Your task to perform on an android device: remove spam from my inbox in the gmail app Image 0: 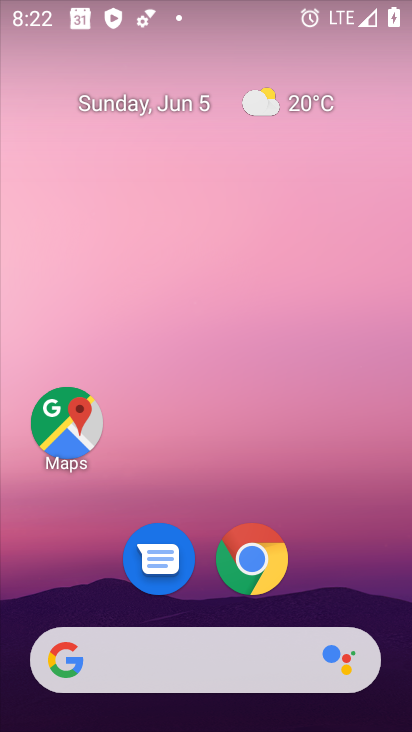
Step 0: drag from (244, 267) to (248, 4)
Your task to perform on an android device: remove spam from my inbox in the gmail app Image 1: 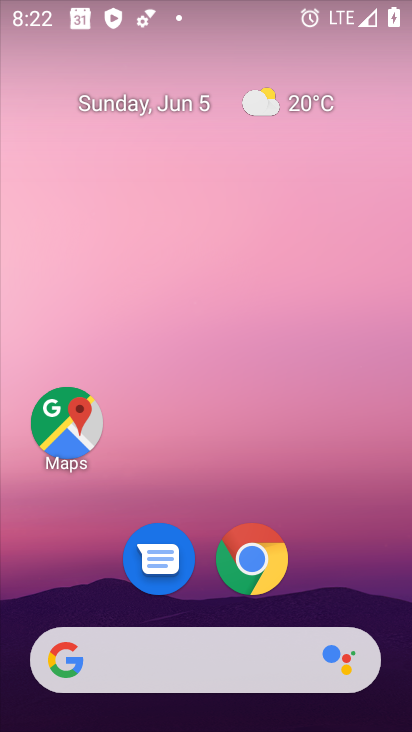
Step 1: drag from (383, 525) to (326, 72)
Your task to perform on an android device: remove spam from my inbox in the gmail app Image 2: 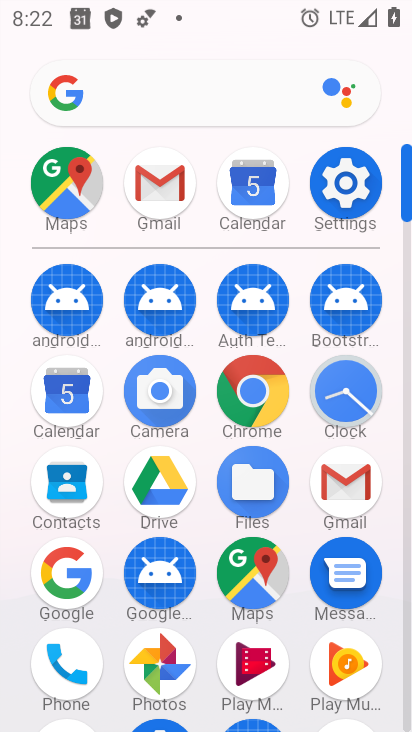
Step 2: click (147, 185)
Your task to perform on an android device: remove spam from my inbox in the gmail app Image 3: 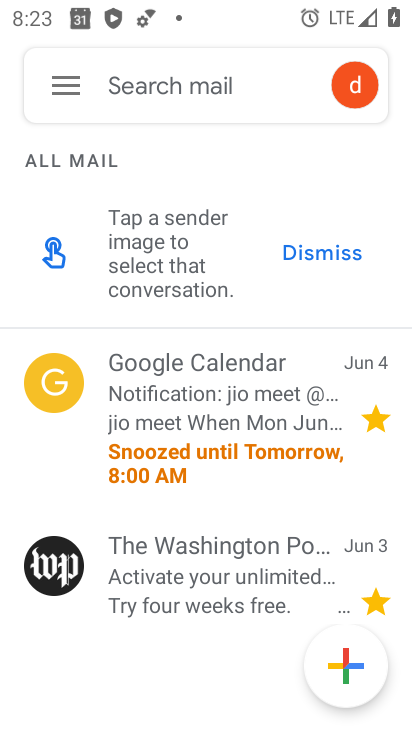
Step 3: click (72, 88)
Your task to perform on an android device: remove spam from my inbox in the gmail app Image 4: 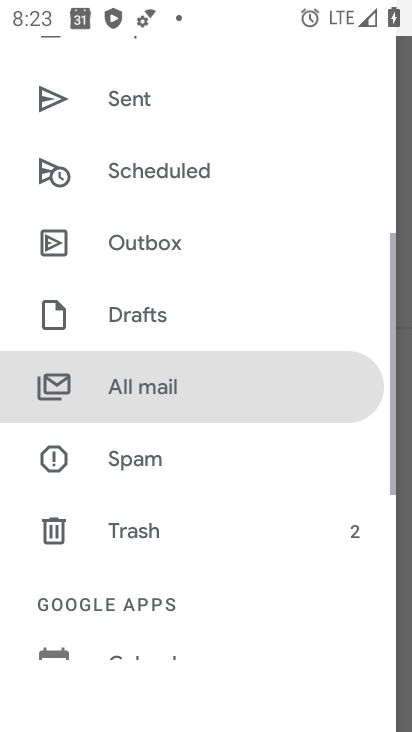
Step 4: drag from (173, 135) to (178, 647)
Your task to perform on an android device: remove spam from my inbox in the gmail app Image 5: 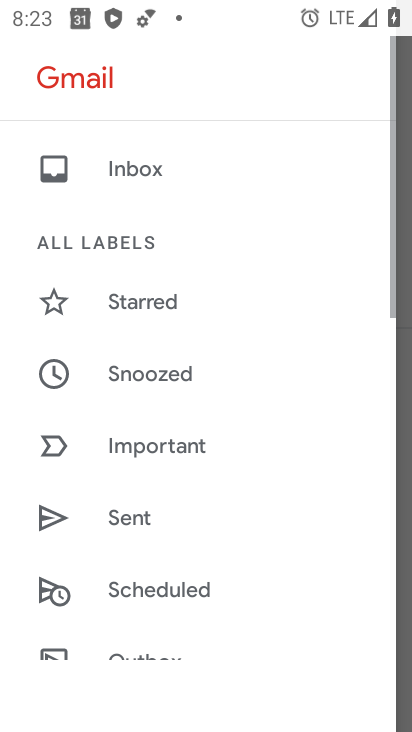
Step 5: click (123, 171)
Your task to perform on an android device: remove spam from my inbox in the gmail app Image 6: 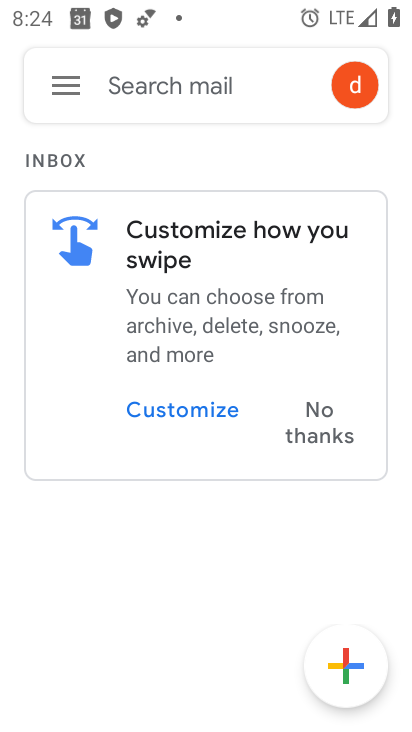
Step 6: task complete